Your task to perform on an android device: find photos in the google photos app Image 0: 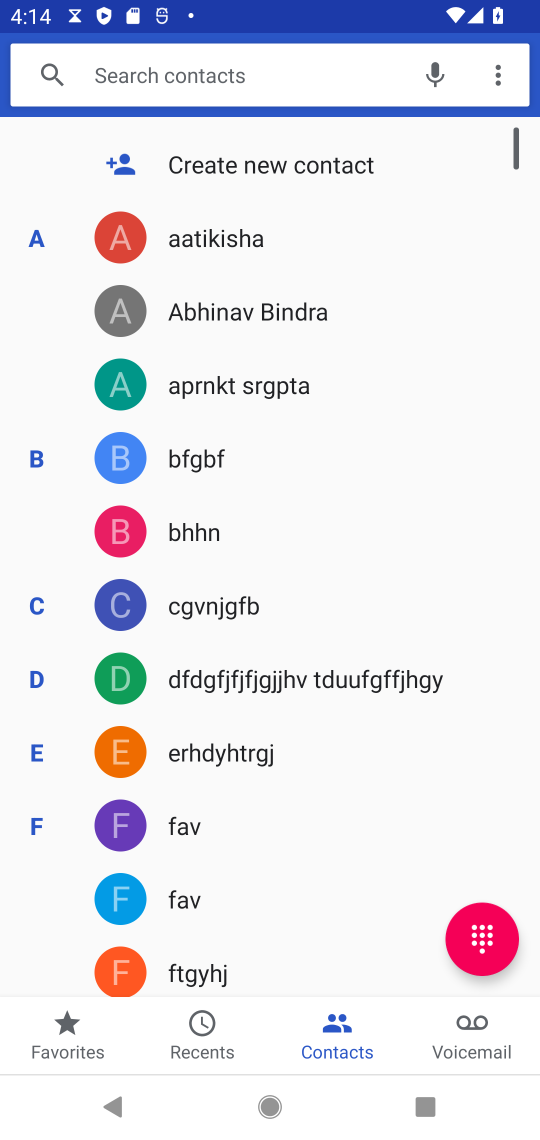
Step 0: press home button
Your task to perform on an android device: find photos in the google photos app Image 1: 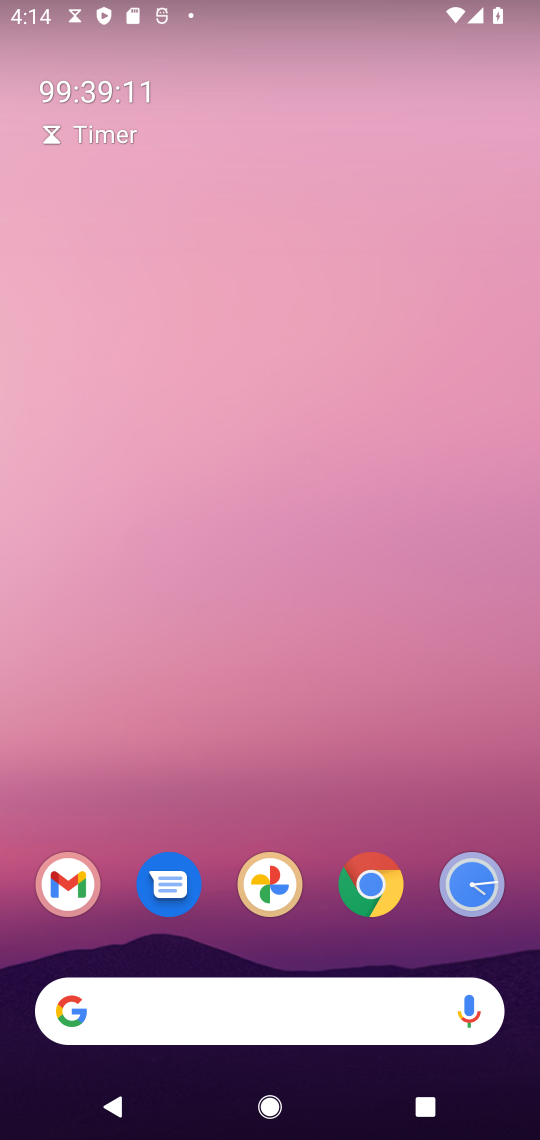
Step 1: drag from (235, 927) to (267, 133)
Your task to perform on an android device: find photos in the google photos app Image 2: 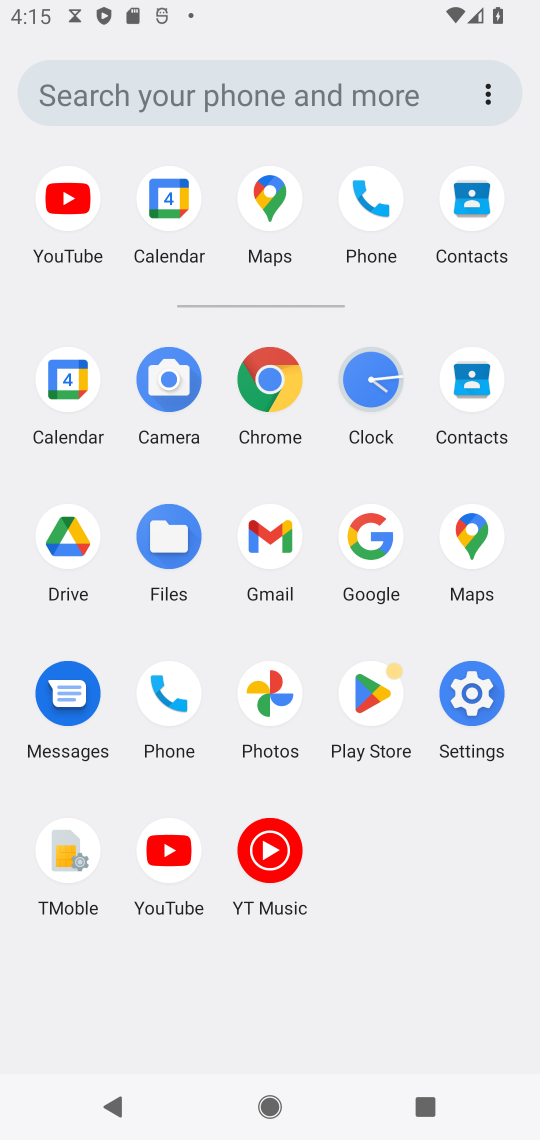
Step 2: click (261, 704)
Your task to perform on an android device: find photos in the google photos app Image 3: 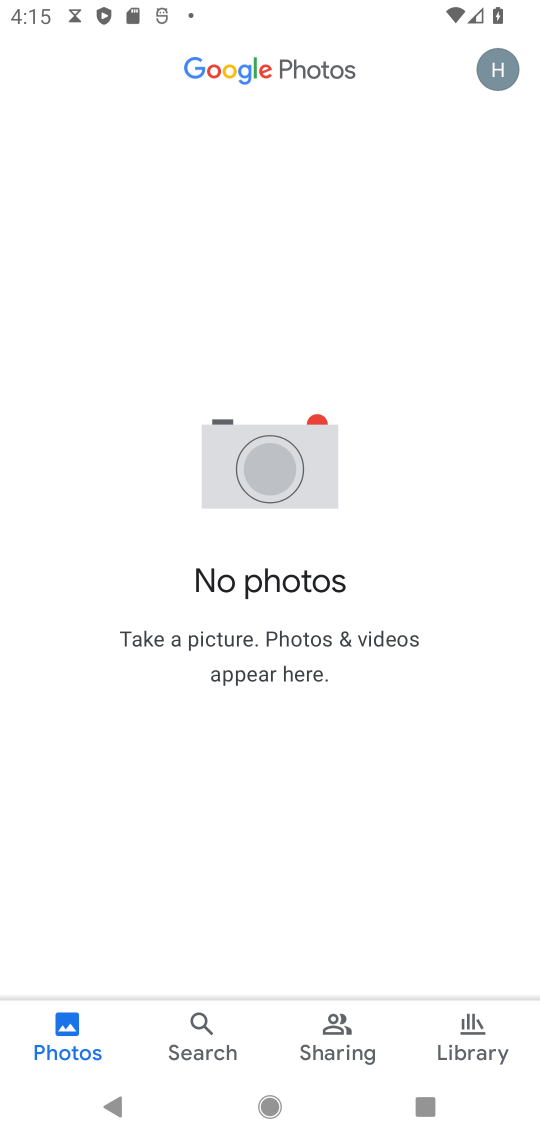
Step 3: task complete